Your task to perform on an android device: toggle notifications settings in the gmail app Image 0: 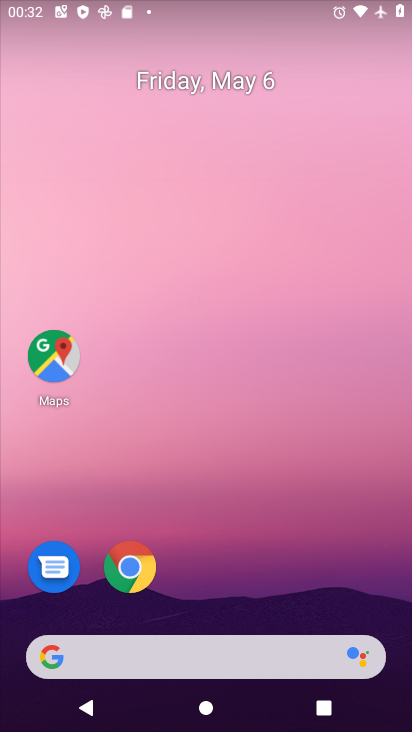
Step 0: drag from (229, 611) to (233, 213)
Your task to perform on an android device: toggle notifications settings in the gmail app Image 1: 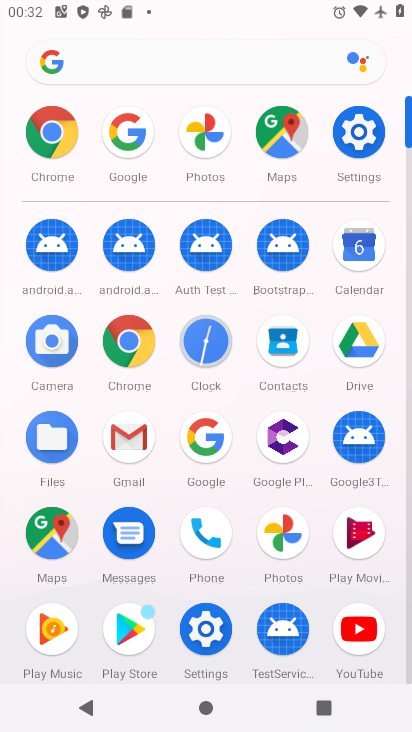
Step 1: click (125, 430)
Your task to perform on an android device: toggle notifications settings in the gmail app Image 2: 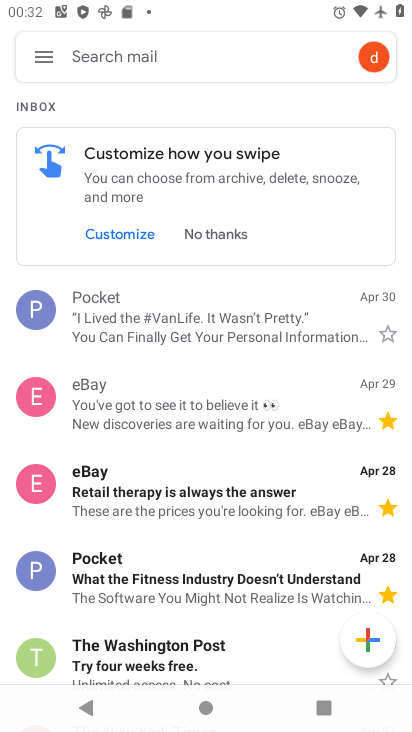
Step 2: click (366, 55)
Your task to perform on an android device: toggle notifications settings in the gmail app Image 3: 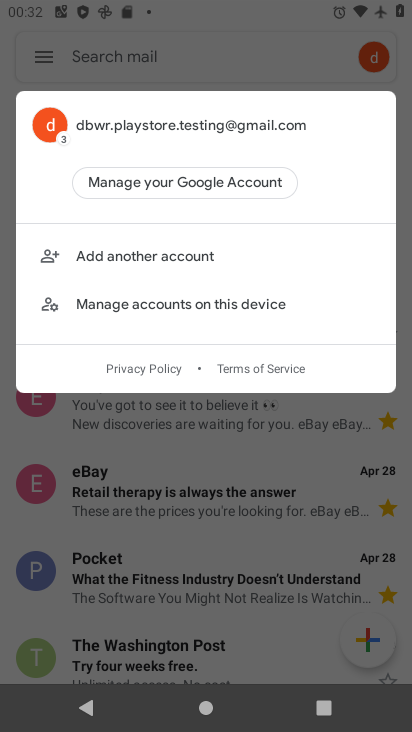
Step 3: click (49, 59)
Your task to perform on an android device: toggle notifications settings in the gmail app Image 4: 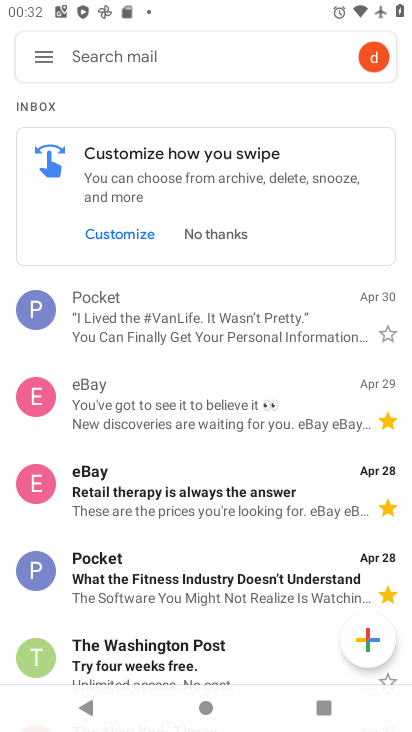
Step 4: click (49, 59)
Your task to perform on an android device: toggle notifications settings in the gmail app Image 5: 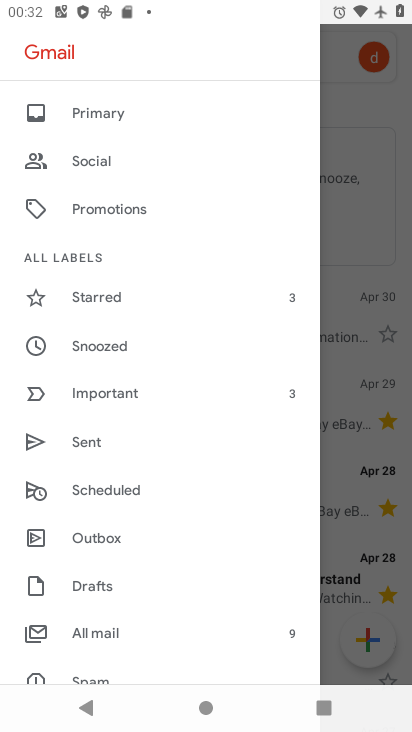
Step 5: drag from (158, 590) to (187, 322)
Your task to perform on an android device: toggle notifications settings in the gmail app Image 6: 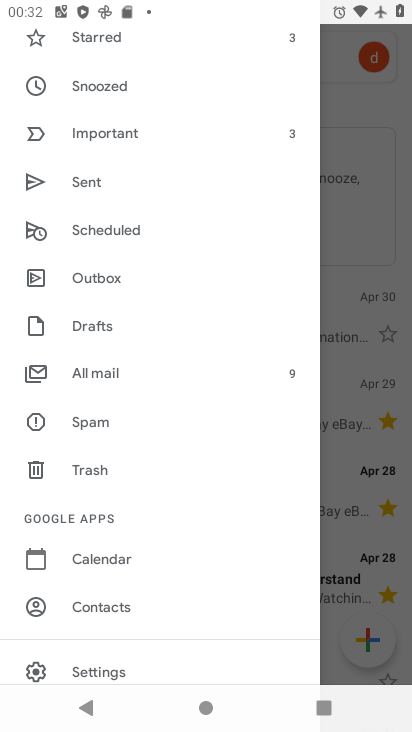
Step 6: click (115, 671)
Your task to perform on an android device: toggle notifications settings in the gmail app Image 7: 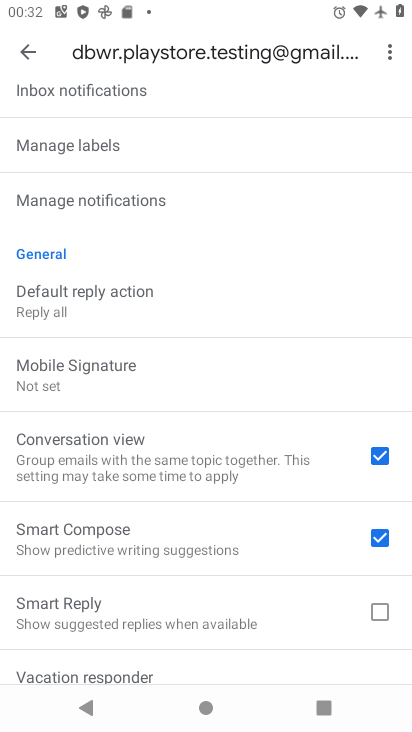
Step 7: drag from (163, 622) to (186, 344)
Your task to perform on an android device: toggle notifications settings in the gmail app Image 8: 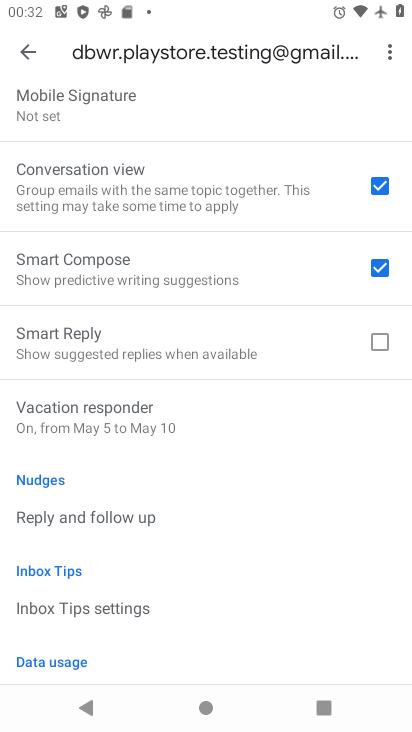
Step 8: drag from (150, 600) to (199, 253)
Your task to perform on an android device: toggle notifications settings in the gmail app Image 9: 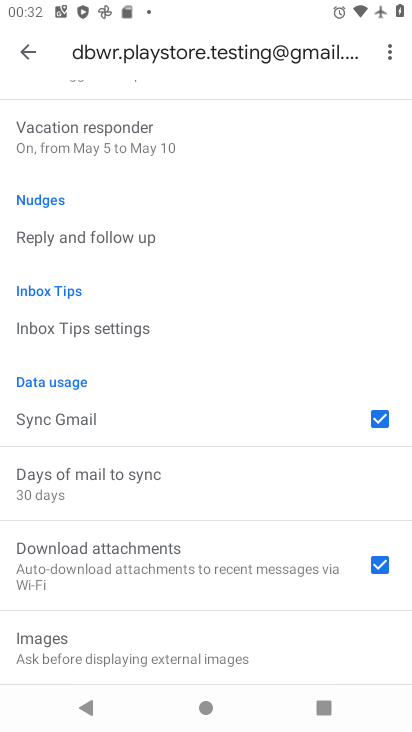
Step 9: drag from (175, 609) to (202, 271)
Your task to perform on an android device: toggle notifications settings in the gmail app Image 10: 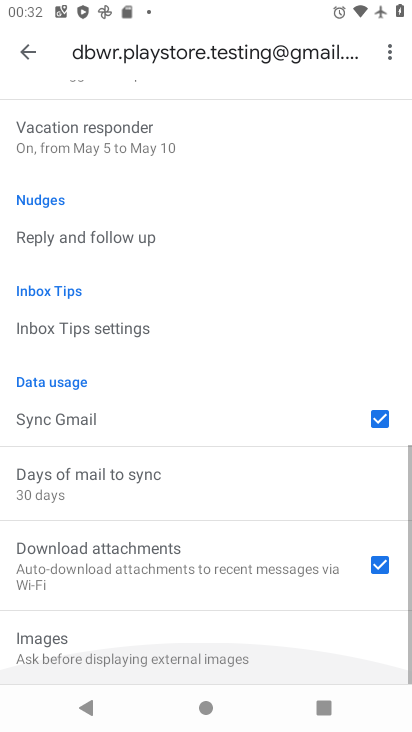
Step 10: drag from (213, 288) to (227, 597)
Your task to perform on an android device: toggle notifications settings in the gmail app Image 11: 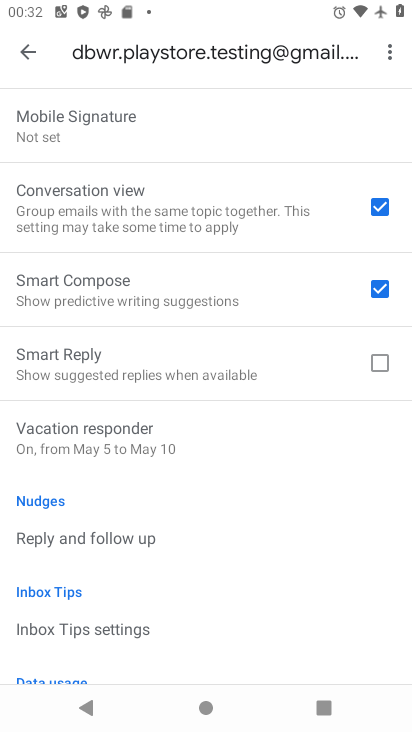
Step 11: drag from (216, 288) to (235, 581)
Your task to perform on an android device: toggle notifications settings in the gmail app Image 12: 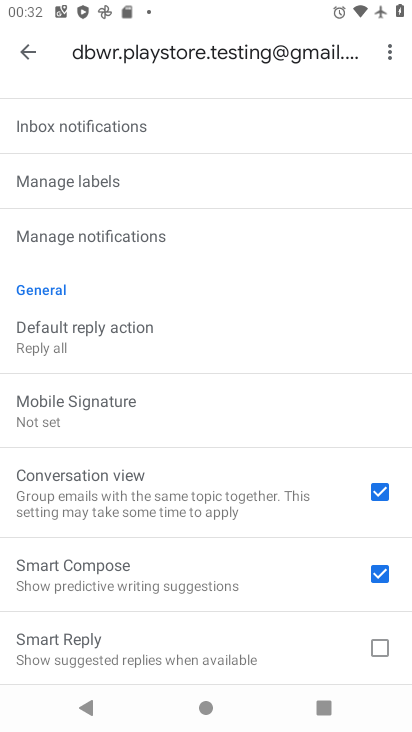
Step 12: click (199, 233)
Your task to perform on an android device: toggle notifications settings in the gmail app Image 13: 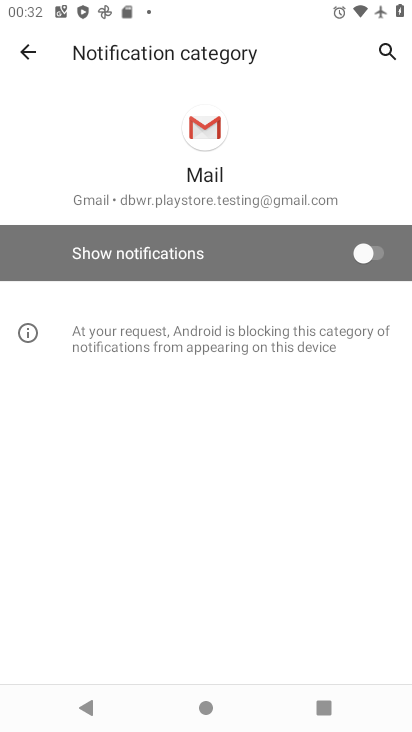
Step 13: click (375, 256)
Your task to perform on an android device: toggle notifications settings in the gmail app Image 14: 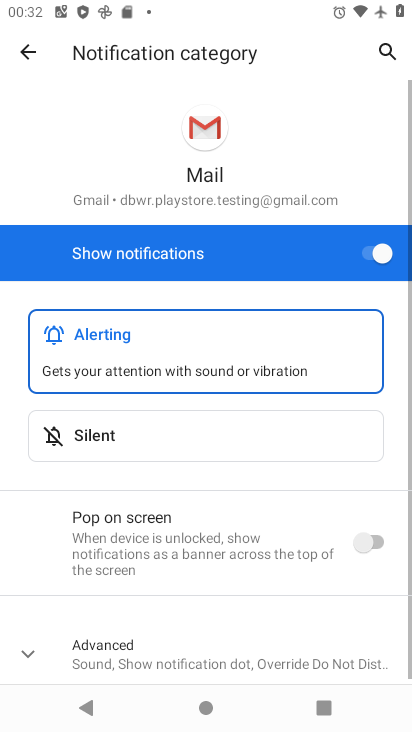
Step 14: task complete